Your task to perform on an android device: Check the weather Image 0: 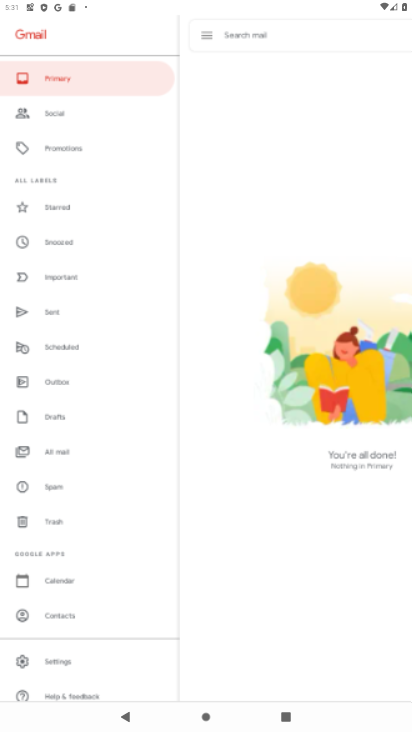
Step 0: drag from (298, 671) to (355, 31)
Your task to perform on an android device: Check the weather Image 1: 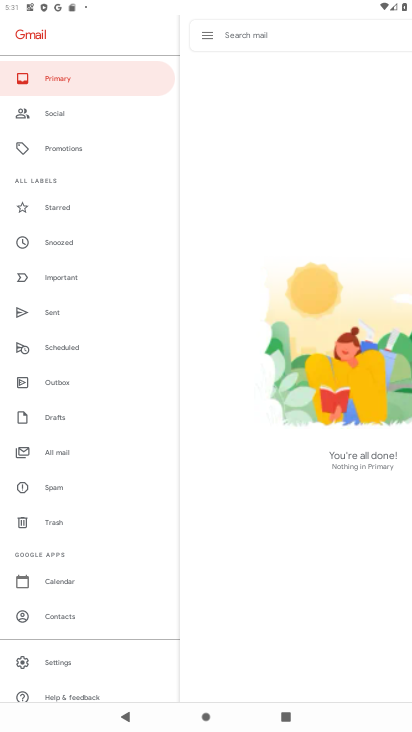
Step 1: press home button
Your task to perform on an android device: Check the weather Image 2: 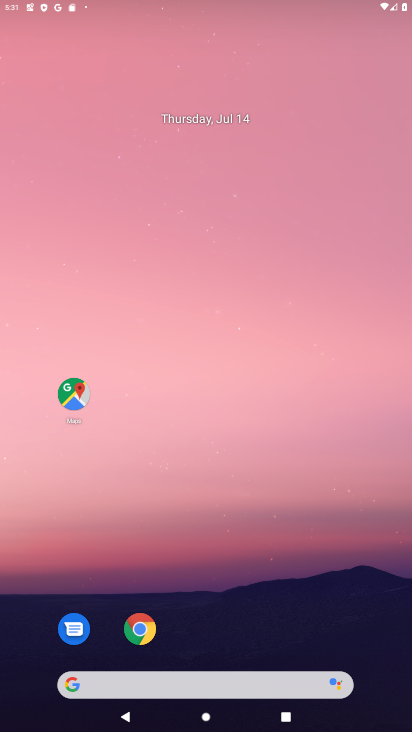
Step 2: drag from (241, 632) to (282, 4)
Your task to perform on an android device: Check the weather Image 3: 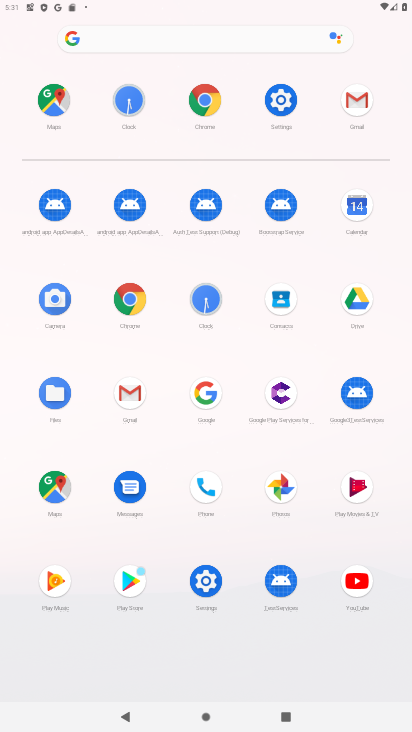
Step 3: click (132, 297)
Your task to perform on an android device: Check the weather Image 4: 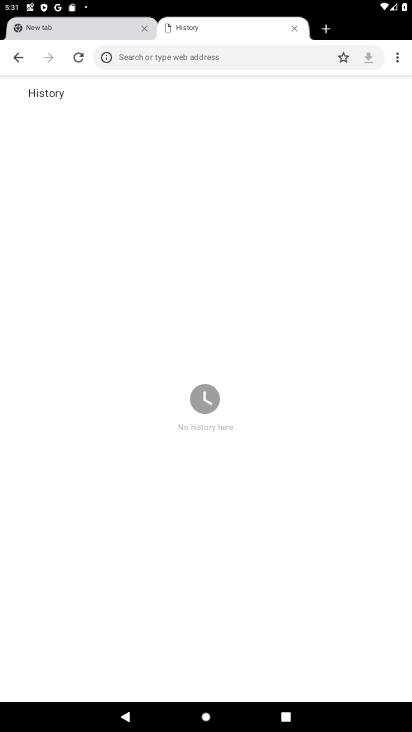
Step 4: click (185, 52)
Your task to perform on an android device: Check the weather Image 5: 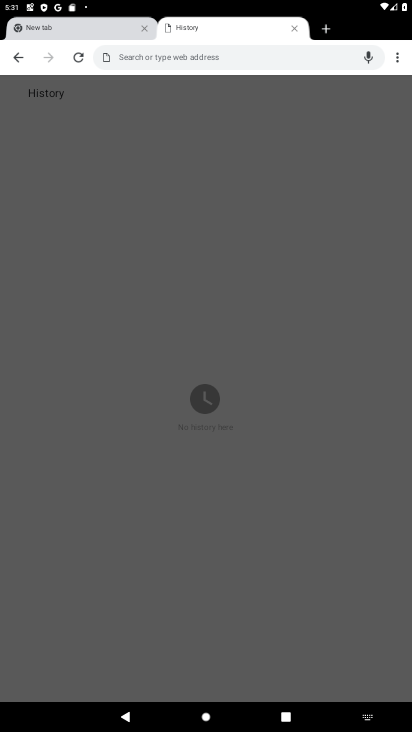
Step 5: type "check the weather"
Your task to perform on an android device: Check the weather Image 6: 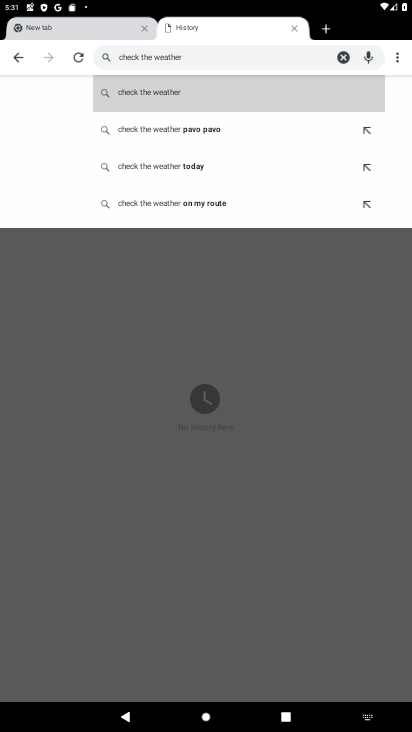
Step 6: click (157, 91)
Your task to perform on an android device: Check the weather Image 7: 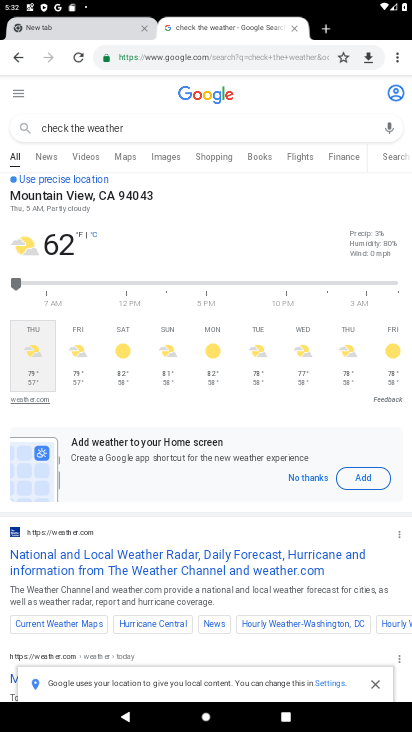
Step 7: task complete